Your task to perform on an android device: check android version Image 0: 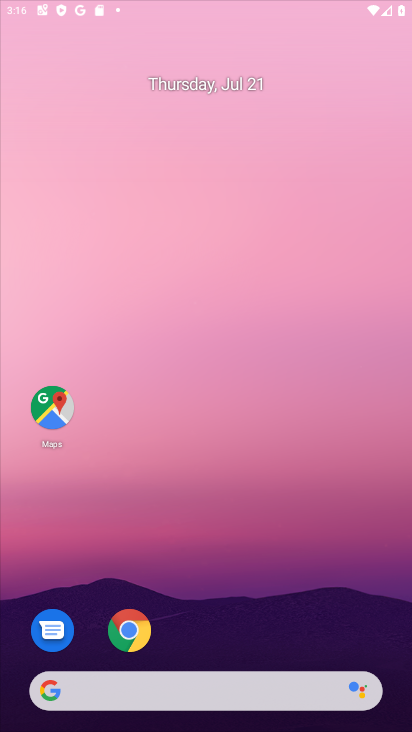
Step 0: drag from (371, 602) to (205, 3)
Your task to perform on an android device: check android version Image 1: 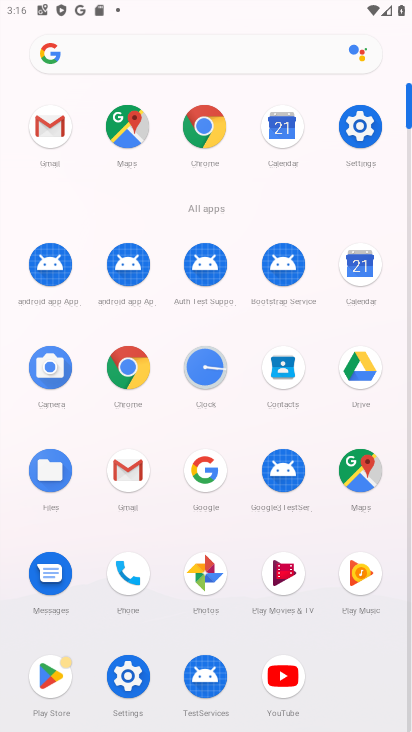
Step 1: click (358, 128)
Your task to perform on an android device: check android version Image 2: 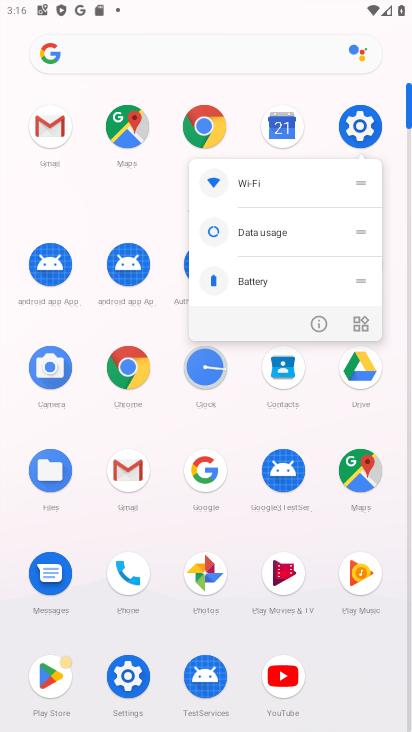
Step 2: click (350, 132)
Your task to perform on an android device: check android version Image 3: 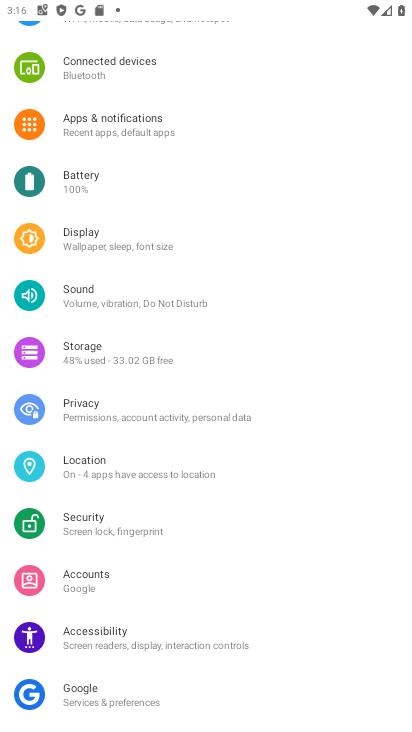
Step 3: drag from (256, 583) to (337, 41)
Your task to perform on an android device: check android version Image 4: 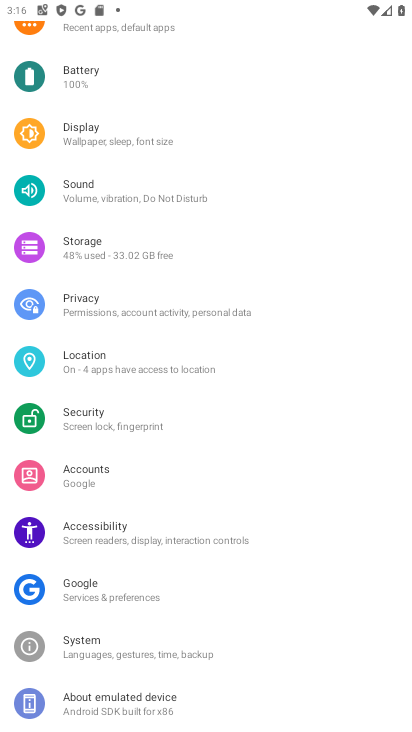
Step 4: click (99, 717)
Your task to perform on an android device: check android version Image 5: 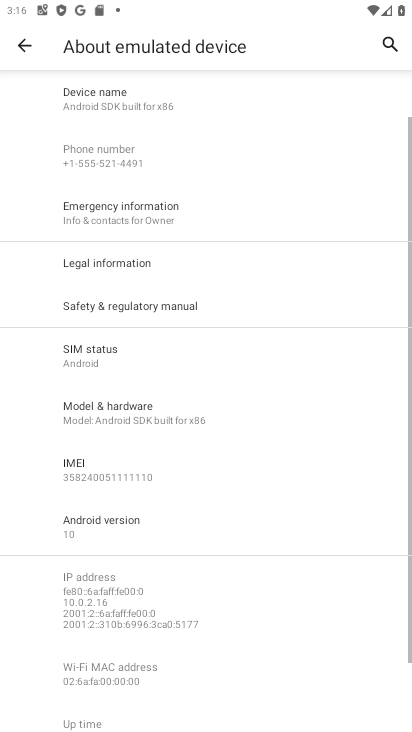
Step 5: click (104, 518)
Your task to perform on an android device: check android version Image 6: 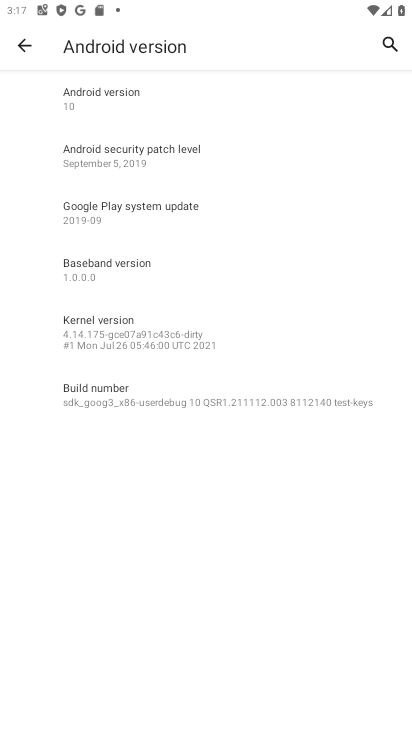
Step 6: task complete